Your task to perform on an android device: Go to Google Image 0: 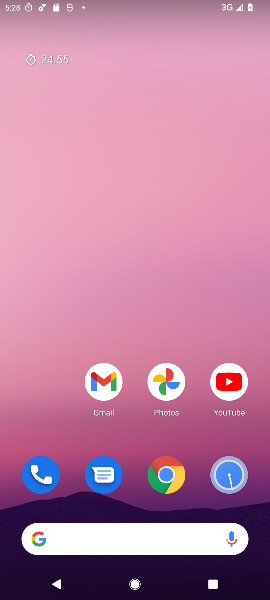
Step 0: press home button
Your task to perform on an android device: Go to Google Image 1: 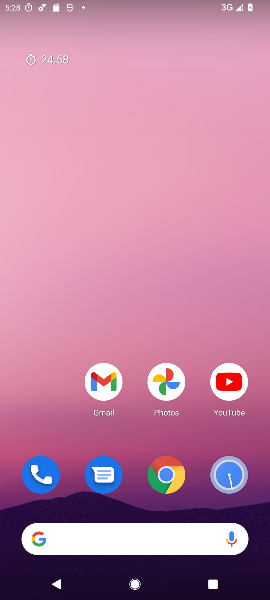
Step 1: drag from (56, 422) to (38, 123)
Your task to perform on an android device: Go to Google Image 2: 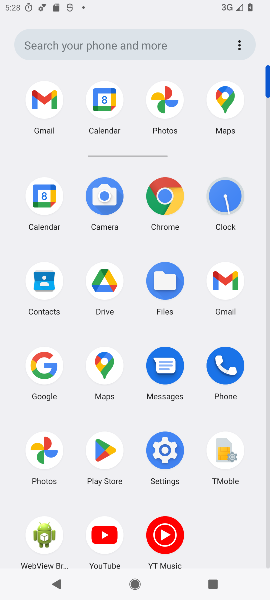
Step 2: click (42, 366)
Your task to perform on an android device: Go to Google Image 3: 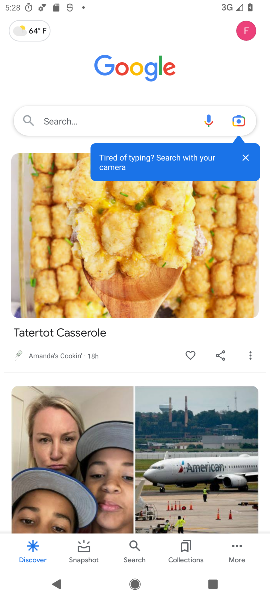
Step 3: task complete